Your task to perform on an android device: Search for Mexican restaurants on Maps Image 0: 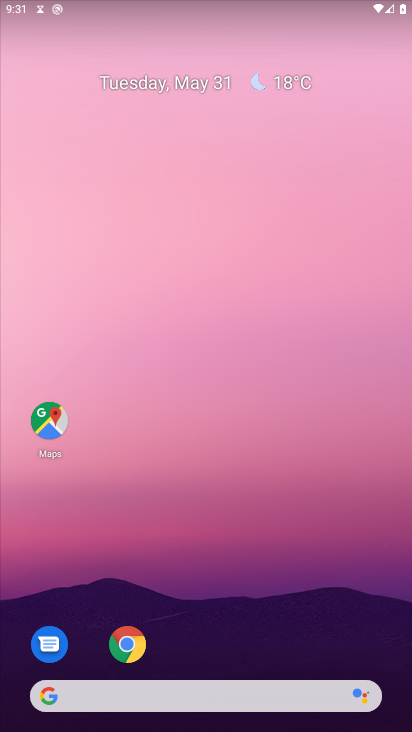
Step 0: drag from (217, 647) to (281, 93)
Your task to perform on an android device: Search for Mexican restaurants on Maps Image 1: 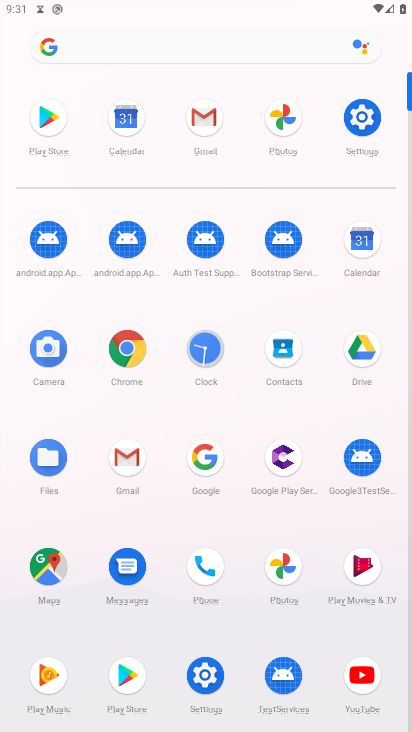
Step 1: click (49, 561)
Your task to perform on an android device: Search for Mexican restaurants on Maps Image 2: 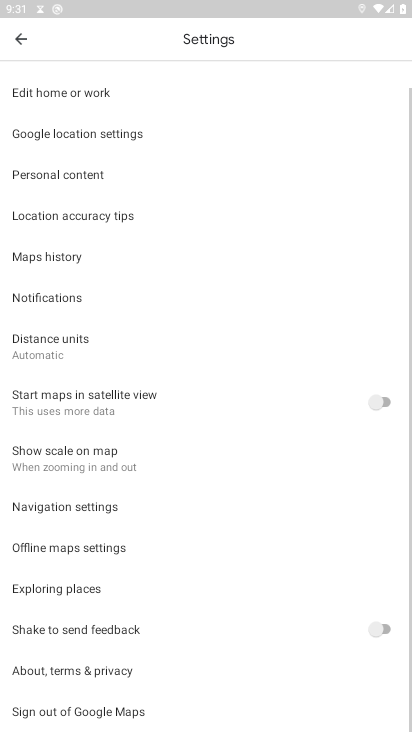
Step 2: click (13, 28)
Your task to perform on an android device: Search for Mexican restaurants on Maps Image 3: 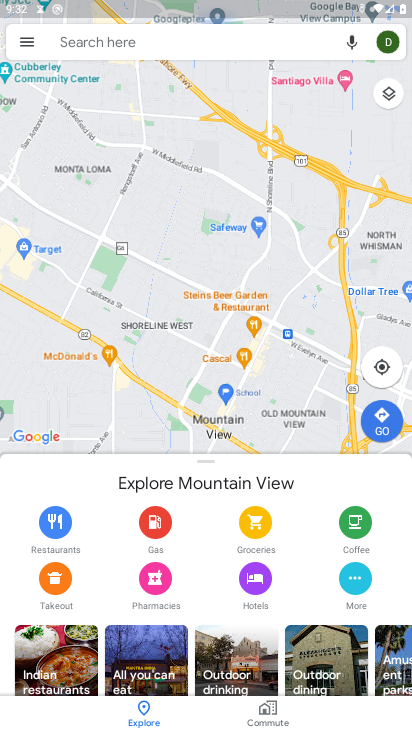
Step 3: click (103, 37)
Your task to perform on an android device: Search for Mexican restaurants on Maps Image 4: 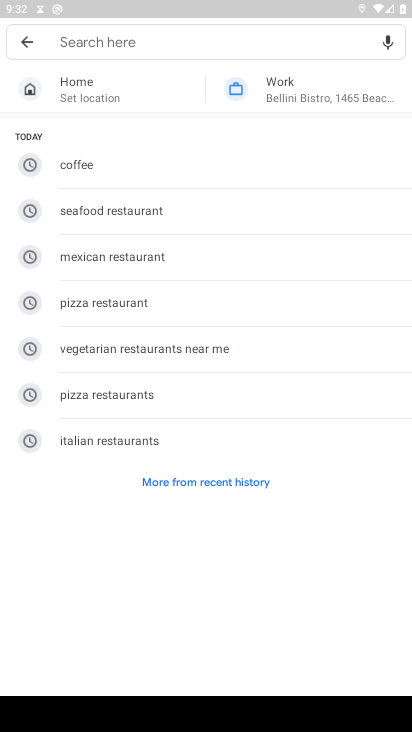
Step 4: click (114, 255)
Your task to perform on an android device: Search for Mexican restaurants on Maps Image 5: 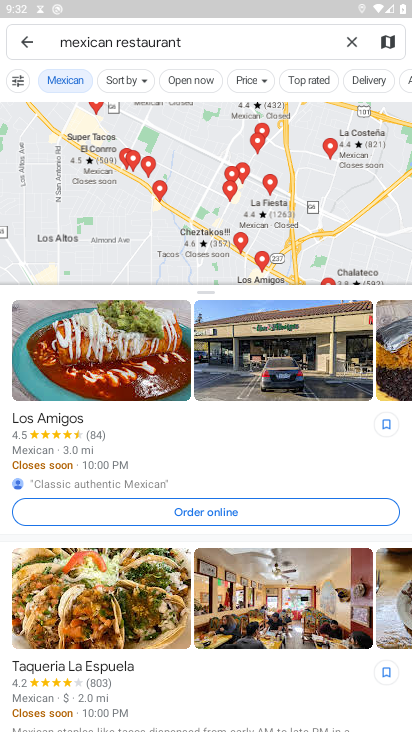
Step 5: task complete